Your task to perform on an android device: change the clock style Image 0: 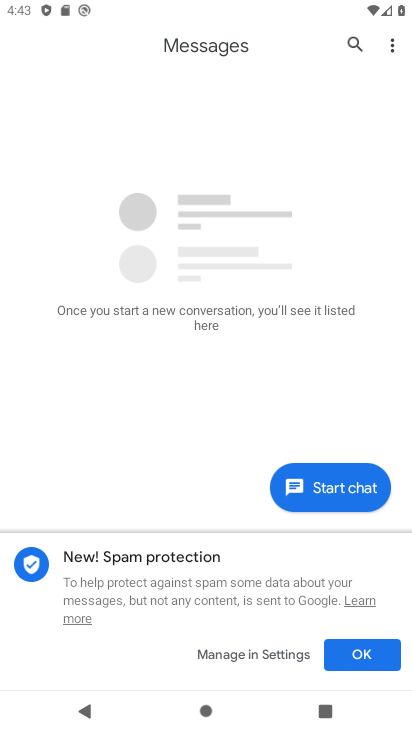
Step 0: press home button
Your task to perform on an android device: change the clock style Image 1: 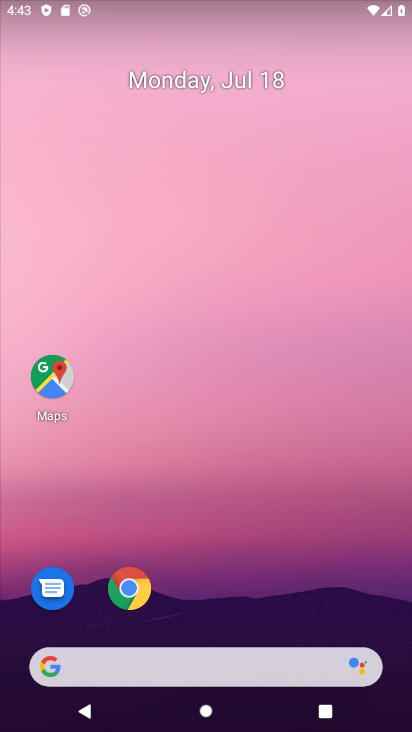
Step 1: drag from (342, 614) to (239, 157)
Your task to perform on an android device: change the clock style Image 2: 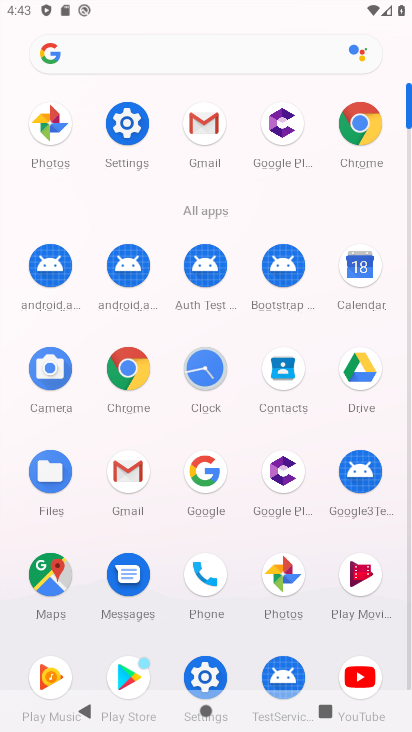
Step 2: click (202, 380)
Your task to perform on an android device: change the clock style Image 3: 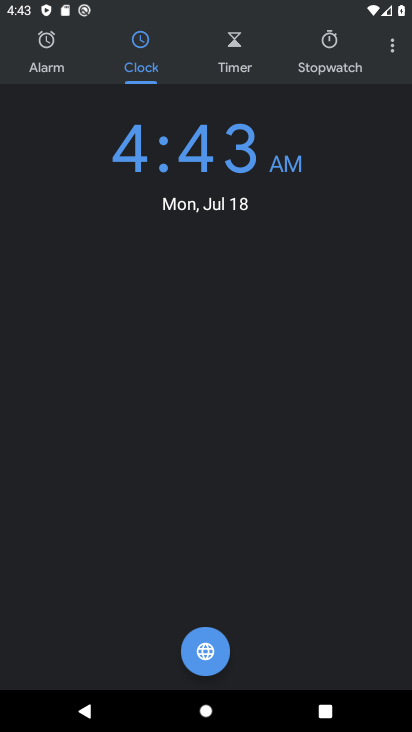
Step 3: click (395, 49)
Your task to perform on an android device: change the clock style Image 4: 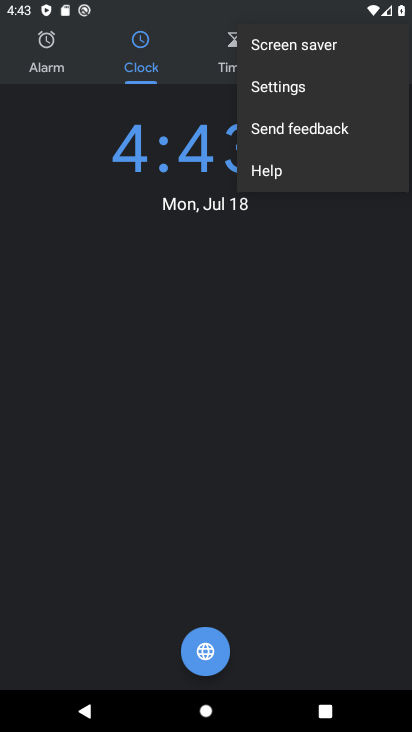
Step 4: click (324, 88)
Your task to perform on an android device: change the clock style Image 5: 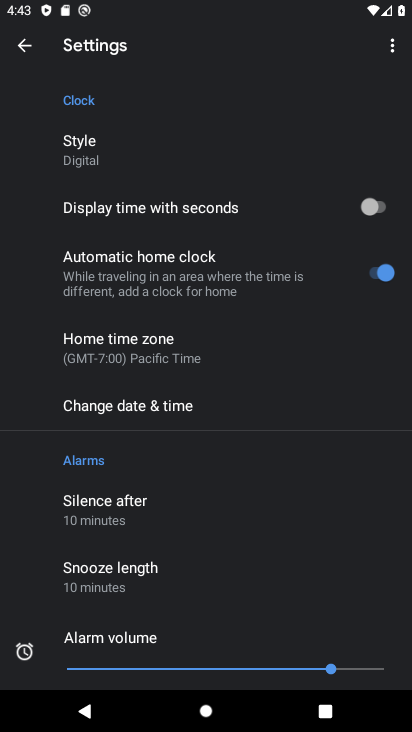
Step 5: click (217, 149)
Your task to perform on an android device: change the clock style Image 6: 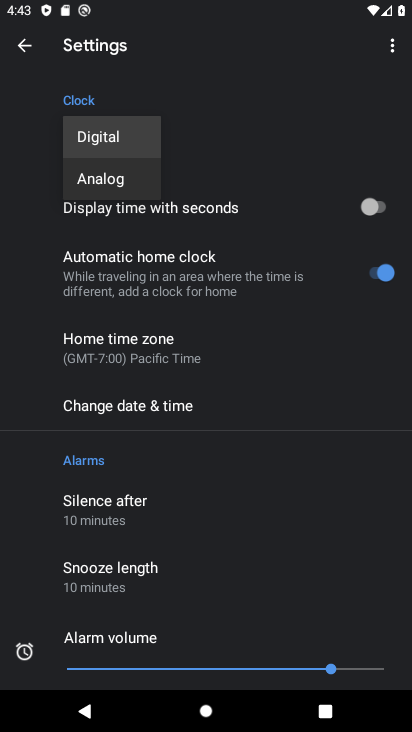
Step 6: click (136, 191)
Your task to perform on an android device: change the clock style Image 7: 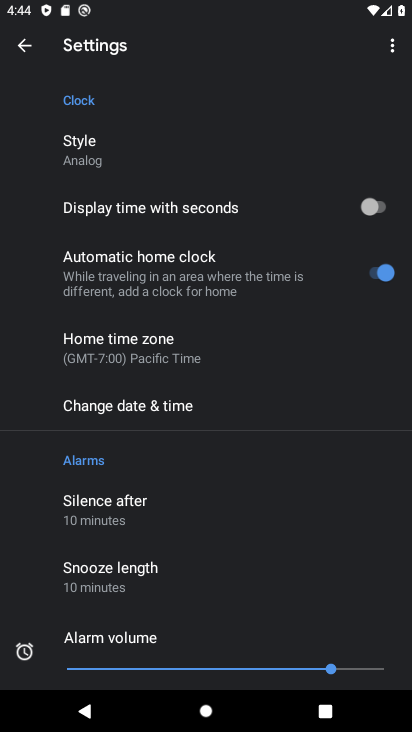
Step 7: task complete